Your task to perform on an android device: turn on airplane mode Image 0: 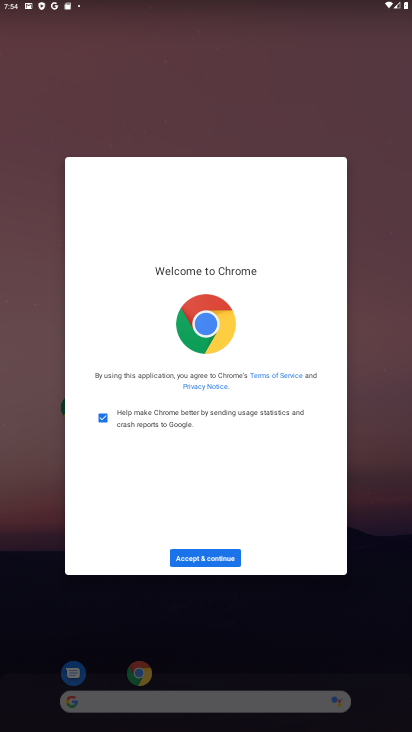
Step 0: click (203, 573)
Your task to perform on an android device: turn on airplane mode Image 1: 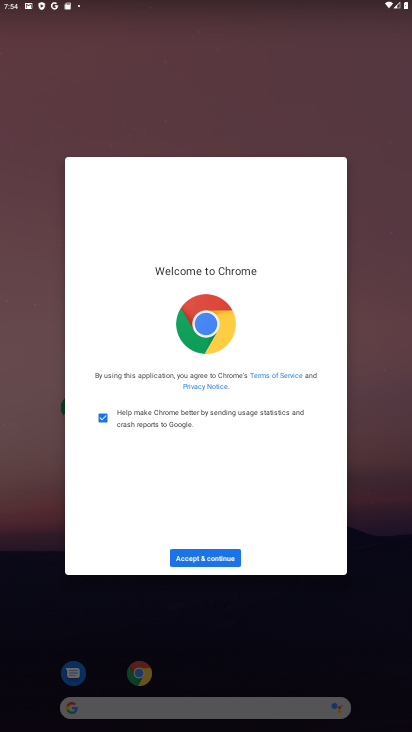
Step 1: click (198, 554)
Your task to perform on an android device: turn on airplane mode Image 2: 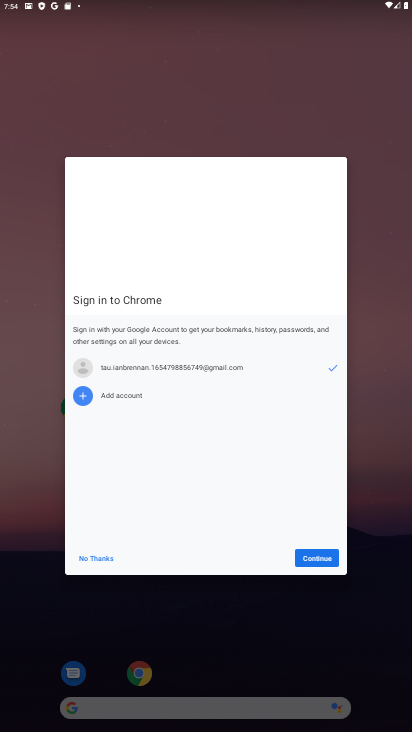
Step 2: press home button
Your task to perform on an android device: turn on airplane mode Image 3: 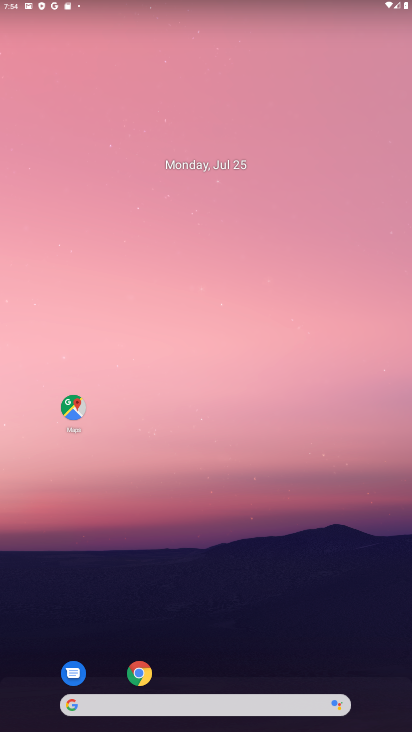
Step 3: drag from (192, 223) to (182, 85)
Your task to perform on an android device: turn on airplane mode Image 4: 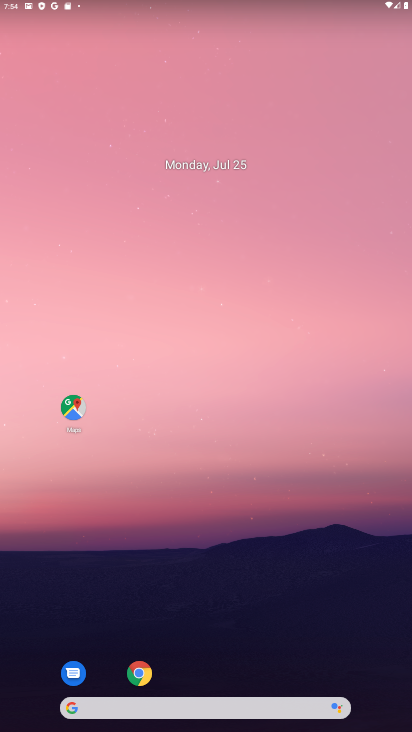
Step 4: drag from (199, 682) to (260, 94)
Your task to perform on an android device: turn on airplane mode Image 5: 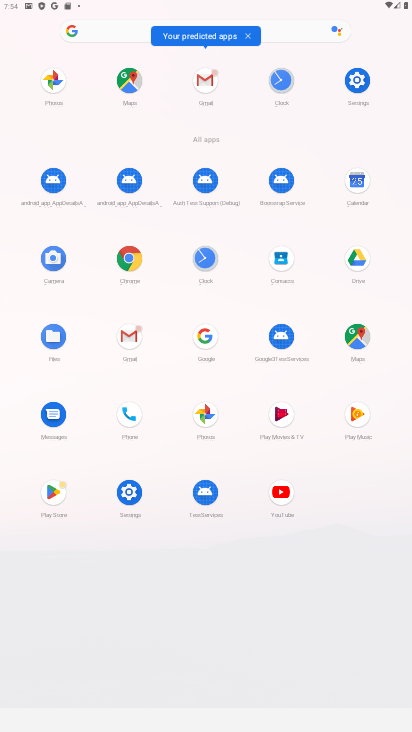
Step 5: click (355, 64)
Your task to perform on an android device: turn on airplane mode Image 6: 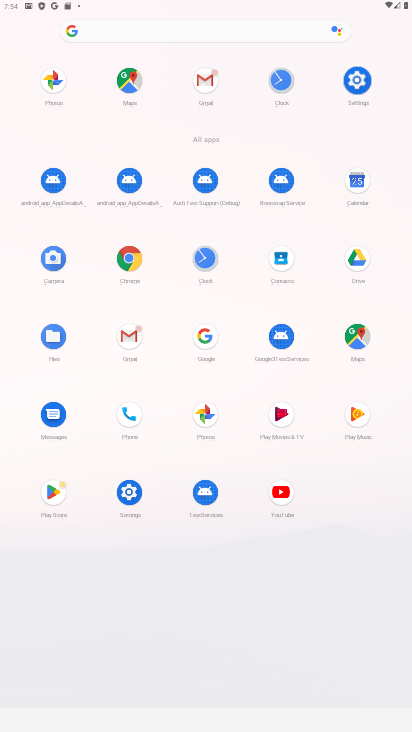
Step 6: click (354, 69)
Your task to perform on an android device: turn on airplane mode Image 7: 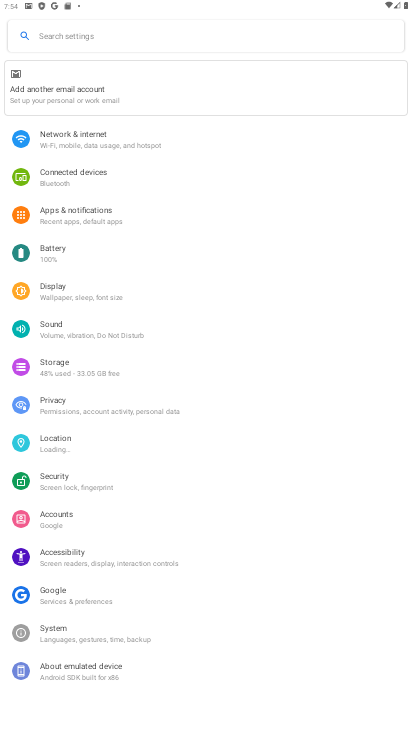
Step 7: click (70, 153)
Your task to perform on an android device: turn on airplane mode Image 8: 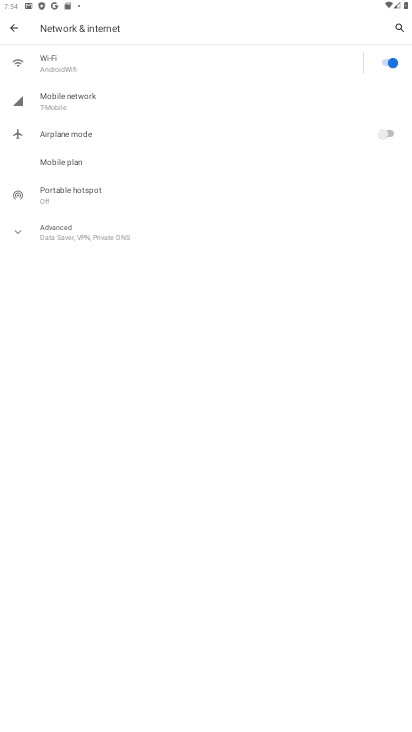
Step 8: click (76, 130)
Your task to perform on an android device: turn on airplane mode Image 9: 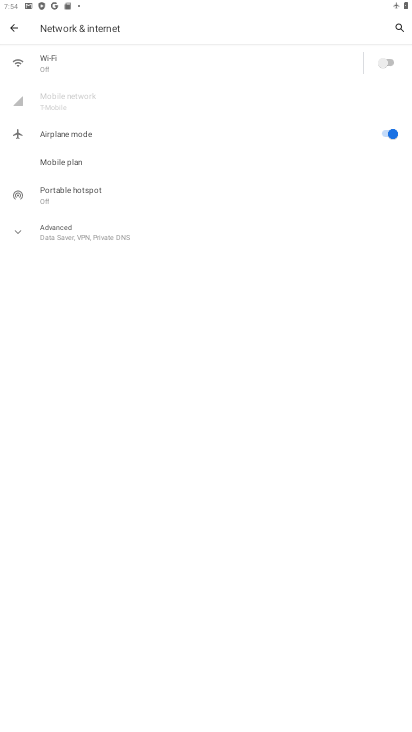
Step 9: task complete